Your task to perform on an android device: turn on showing notifications on the lock screen Image 0: 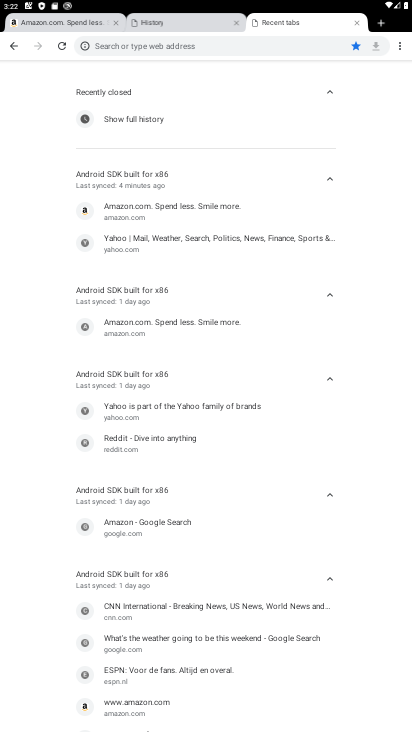
Step 0: press home button
Your task to perform on an android device: turn on showing notifications on the lock screen Image 1: 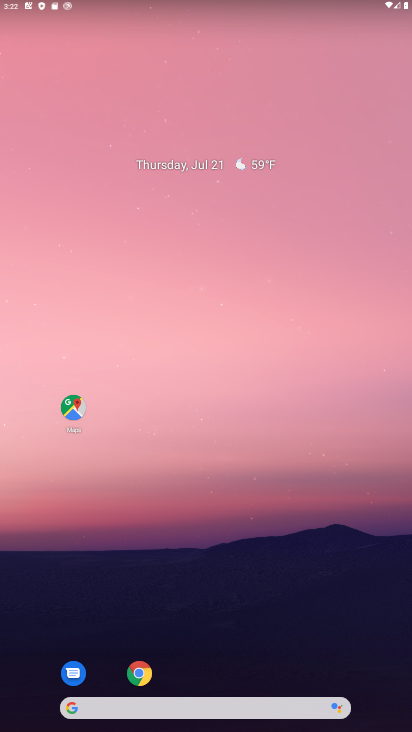
Step 1: drag from (264, 653) to (185, 84)
Your task to perform on an android device: turn on showing notifications on the lock screen Image 2: 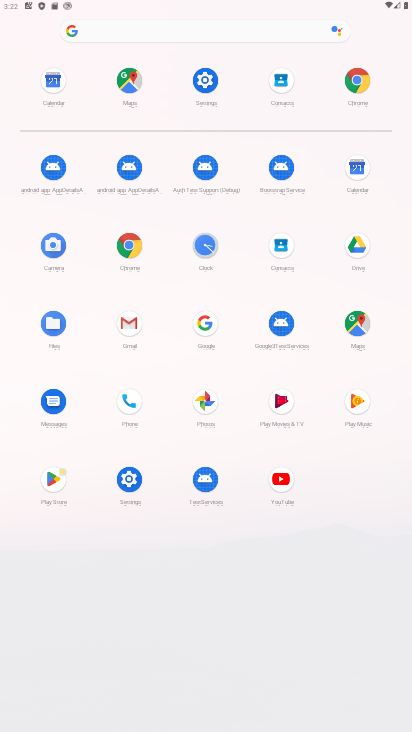
Step 2: click (201, 92)
Your task to perform on an android device: turn on showing notifications on the lock screen Image 3: 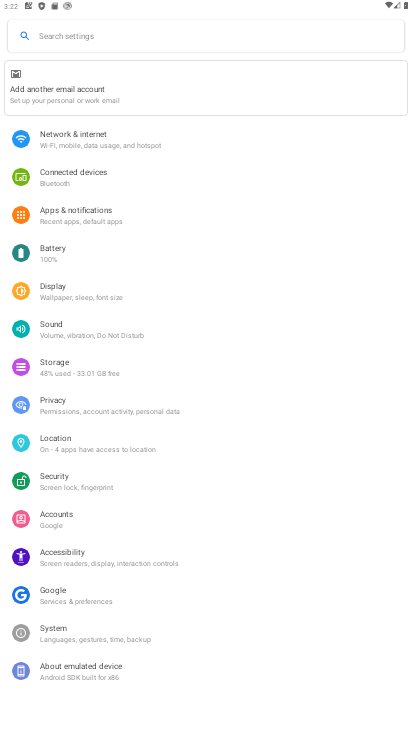
Step 3: click (162, 210)
Your task to perform on an android device: turn on showing notifications on the lock screen Image 4: 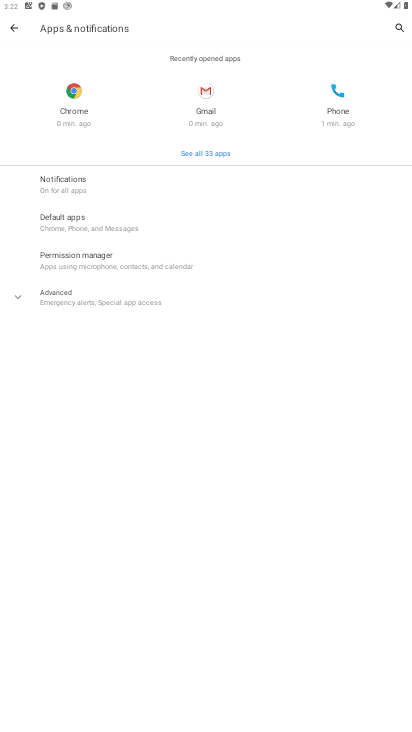
Step 4: click (159, 183)
Your task to perform on an android device: turn on showing notifications on the lock screen Image 5: 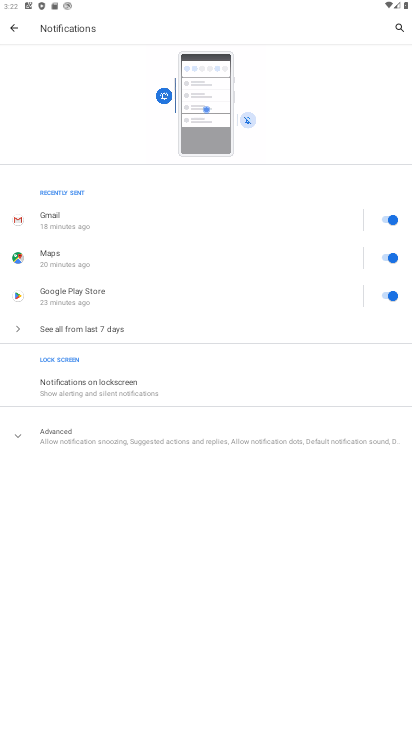
Step 5: click (175, 433)
Your task to perform on an android device: turn on showing notifications on the lock screen Image 6: 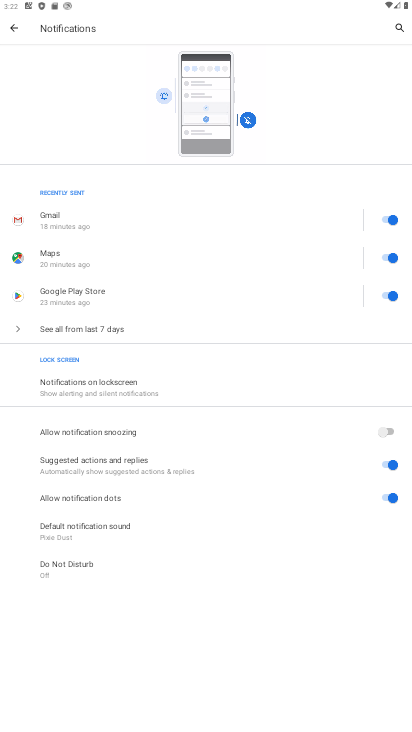
Step 6: click (164, 377)
Your task to perform on an android device: turn on showing notifications on the lock screen Image 7: 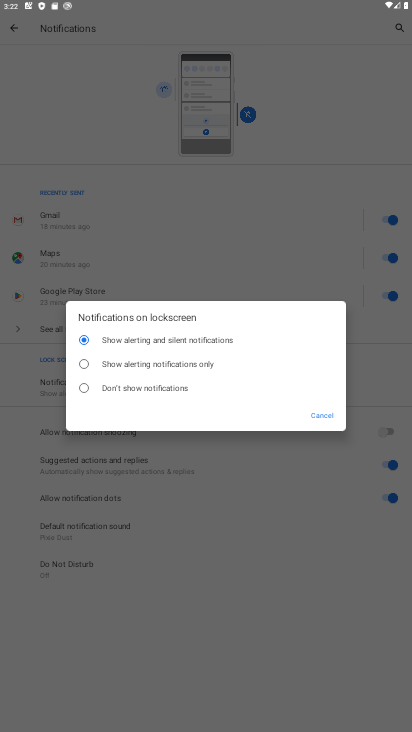
Step 7: task complete